Your task to perform on an android device: toggle location history Image 0: 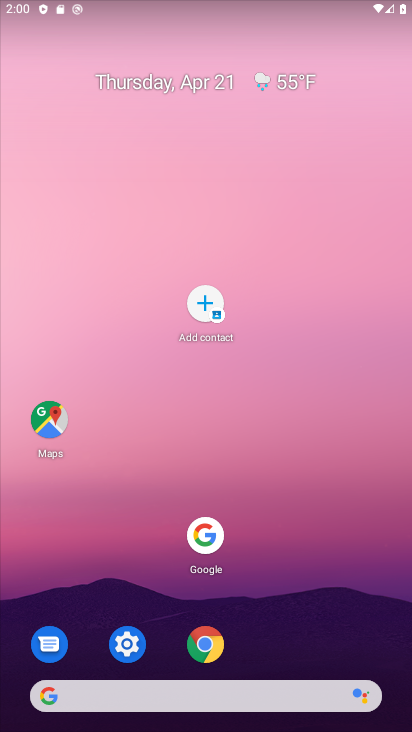
Step 0: drag from (344, 509) to (312, 206)
Your task to perform on an android device: toggle location history Image 1: 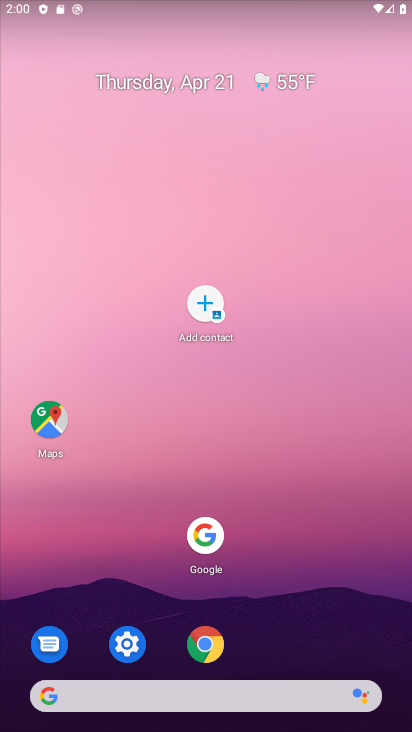
Step 1: drag from (307, 695) to (233, 61)
Your task to perform on an android device: toggle location history Image 2: 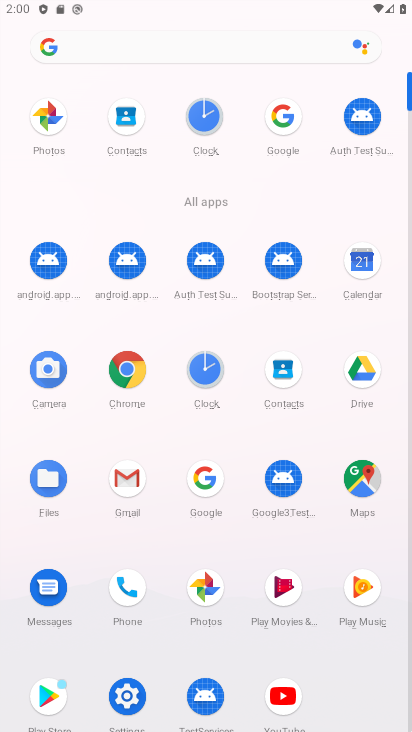
Step 2: drag from (309, 550) to (231, 71)
Your task to perform on an android device: toggle location history Image 3: 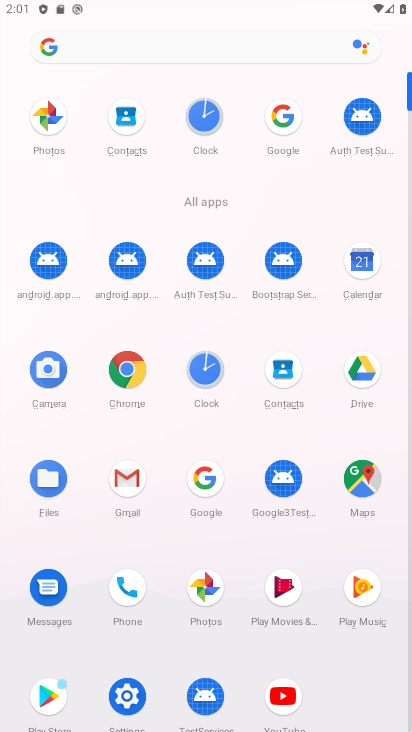
Step 3: click (360, 482)
Your task to perform on an android device: toggle location history Image 4: 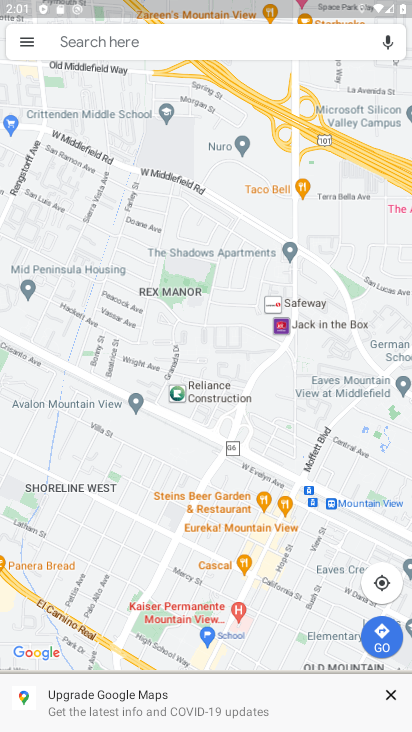
Step 4: click (34, 40)
Your task to perform on an android device: toggle location history Image 5: 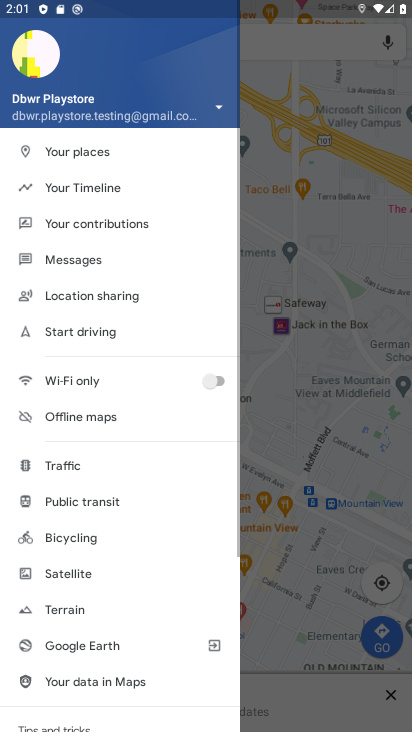
Step 5: click (31, 41)
Your task to perform on an android device: toggle location history Image 6: 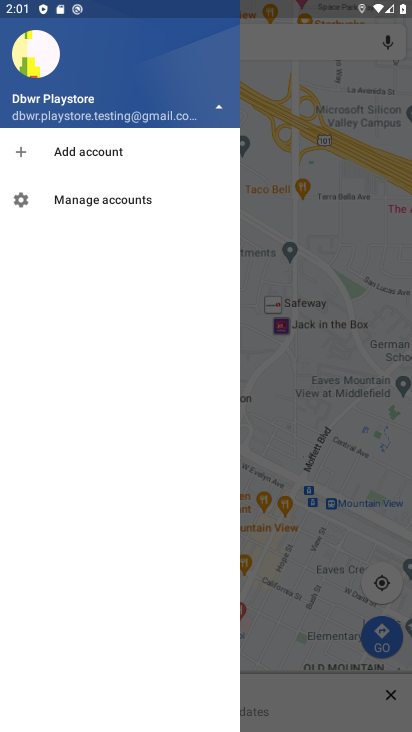
Step 6: click (99, 156)
Your task to perform on an android device: toggle location history Image 7: 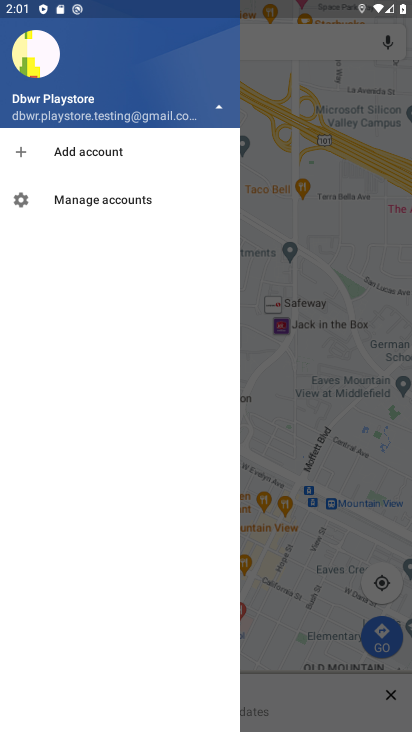
Step 7: click (101, 152)
Your task to perform on an android device: toggle location history Image 8: 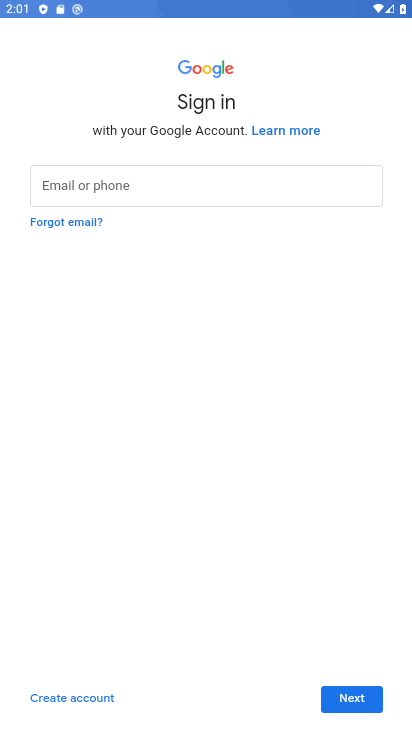
Step 8: press home button
Your task to perform on an android device: toggle location history Image 9: 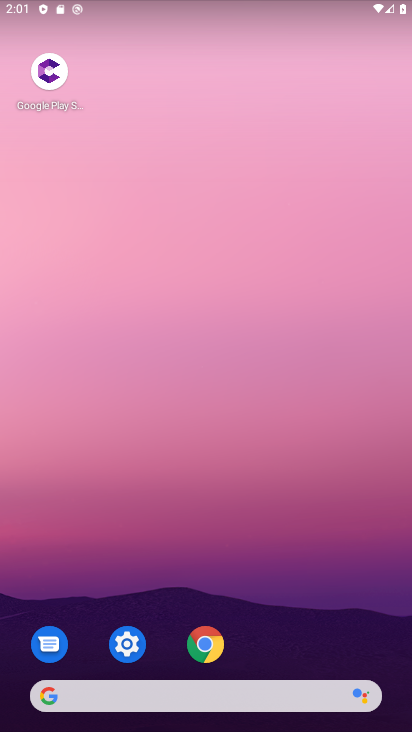
Step 9: drag from (283, 642) to (210, 70)
Your task to perform on an android device: toggle location history Image 10: 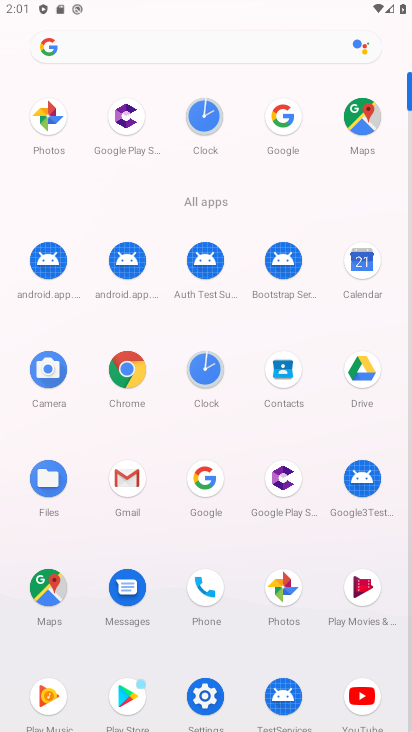
Step 10: click (354, 112)
Your task to perform on an android device: toggle location history Image 11: 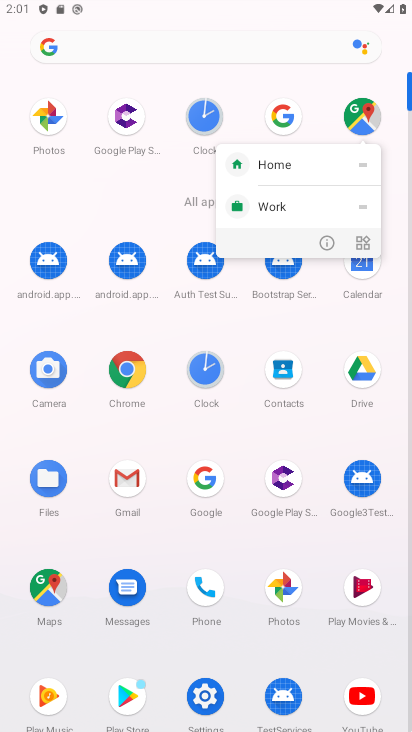
Step 11: click (358, 113)
Your task to perform on an android device: toggle location history Image 12: 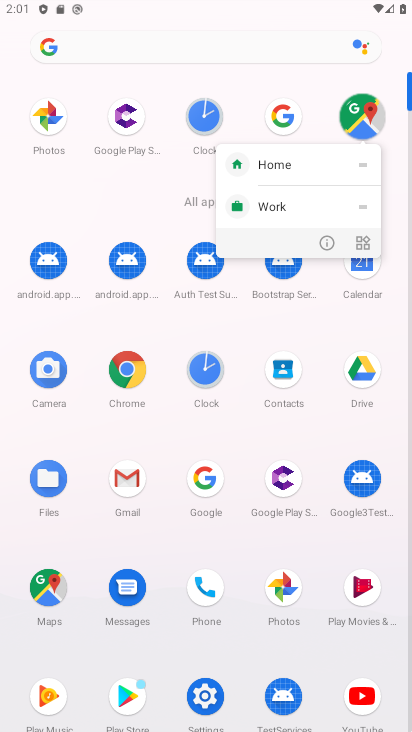
Step 12: click (358, 113)
Your task to perform on an android device: toggle location history Image 13: 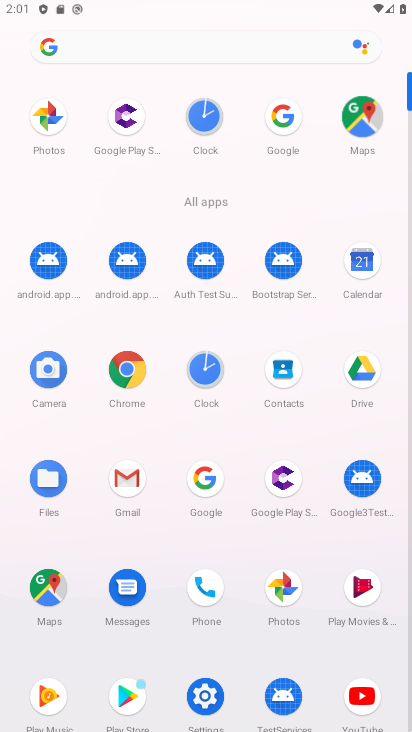
Step 13: click (365, 128)
Your task to perform on an android device: toggle location history Image 14: 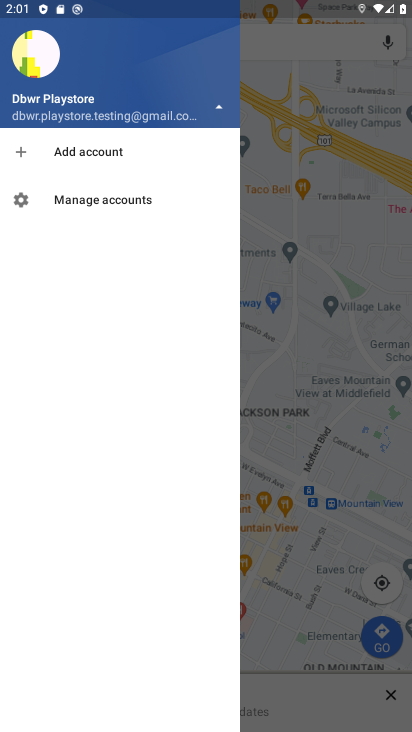
Step 14: click (355, 124)
Your task to perform on an android device: toggle location history Image 15: 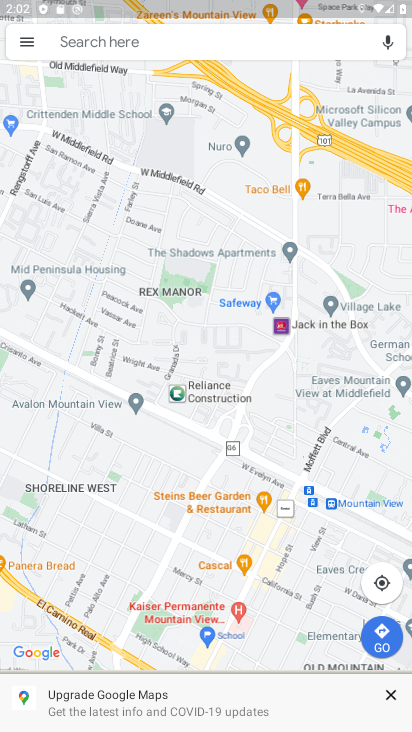
Step 15: click (26, 45)
Your task to perform on an android device: toggle location history Image 16: 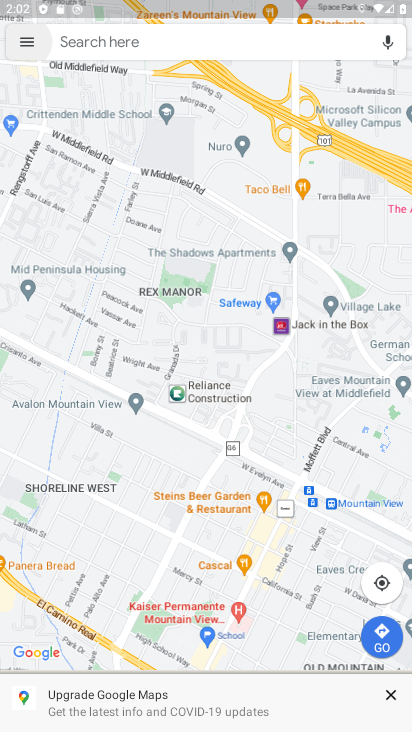
Step 16: click (26, 45)
Your task to perform on an android device: toggle location history Image 17: 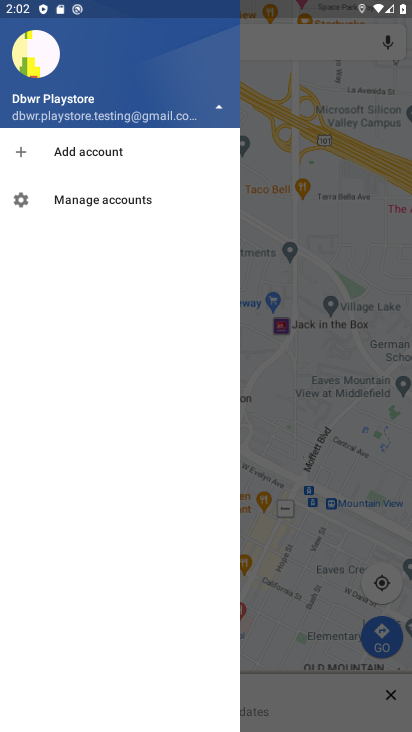
Step 17: click (210, 110)
Your task to perform on an android device: toggle location history Image 18: 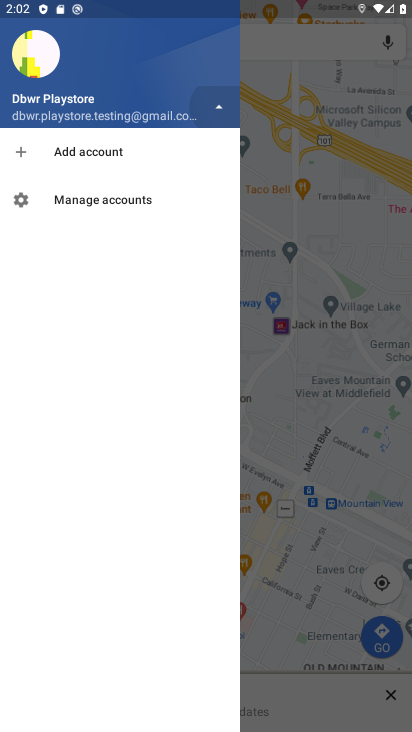
Step 18: click (210, 110)
Your task to perform on an android device: toggle location history Image 19: 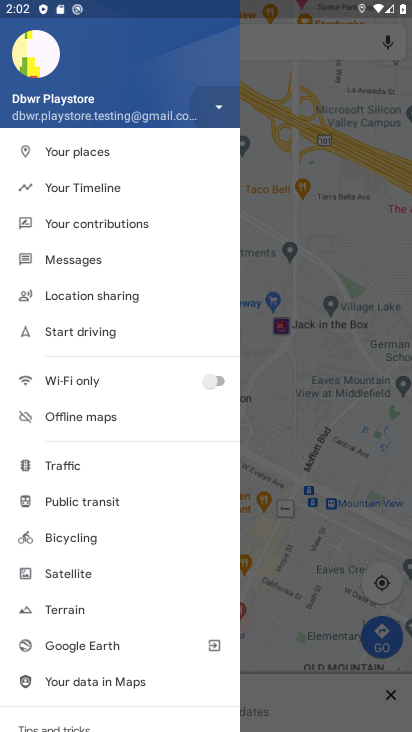
Step 19: click (208, 113)
Your task to perform on an android device: toggle location history Image 20: 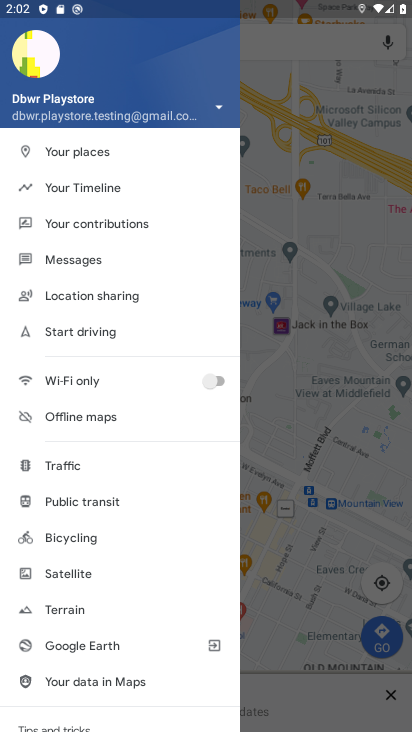
Step 20: click (74, 184)
Your task to perform on an android device: toggle location history Image 21: 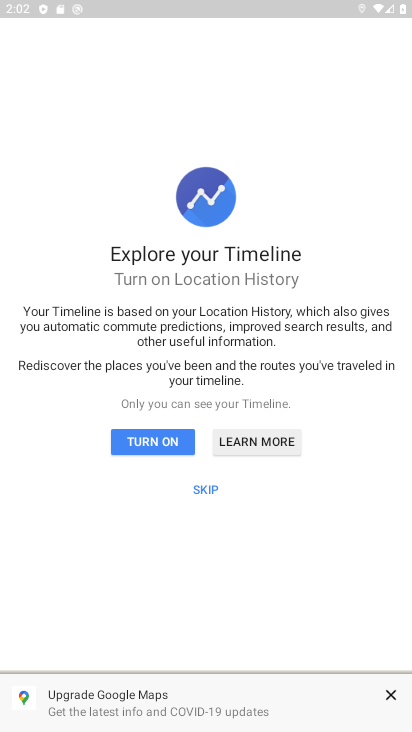
Step 21: click (132, 443)
Your task to perform on an android device: toggle location history Image 22: 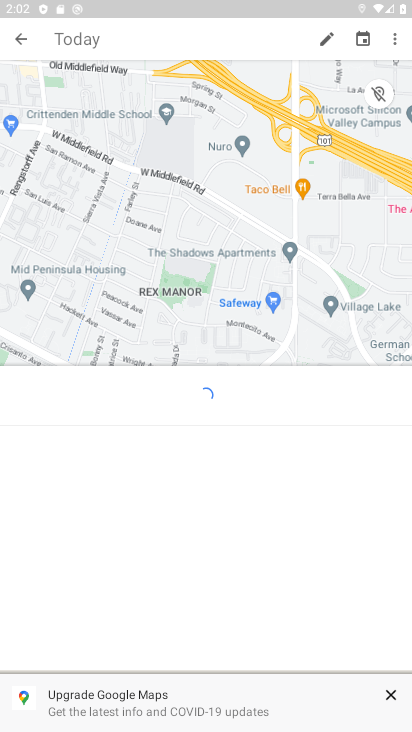
Step 22: click (150, 433)
Your task to perform on an android device: toggle location history Image 23: 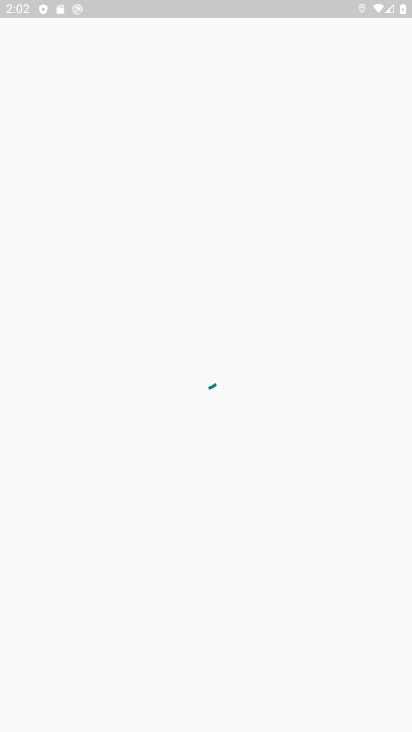
Step 23: click (388, 43)
Your task to perform on an android device: toggle location history Image 24: 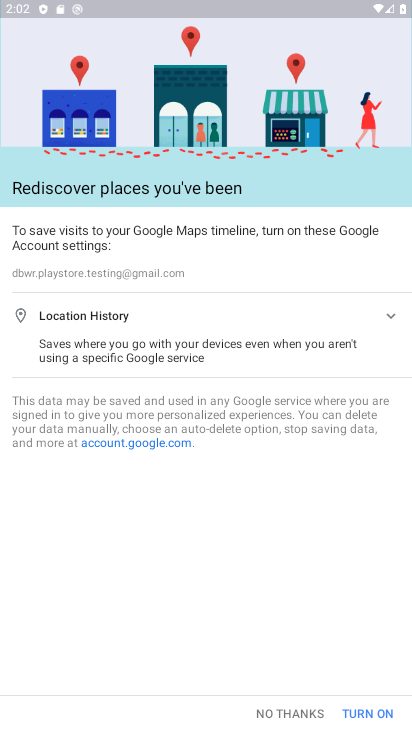
Step 24: click (124, 345)
Your task to perform on an android device: toggle location history Image 25: 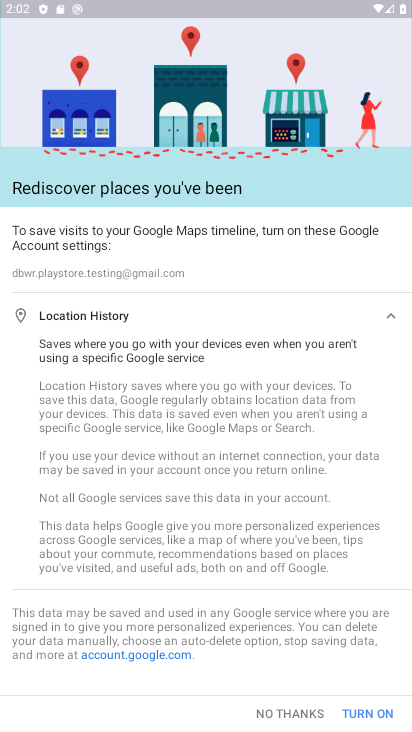
Step 25: click (116, 349)
Your task to perform on an android device: toggle location history Image 26: 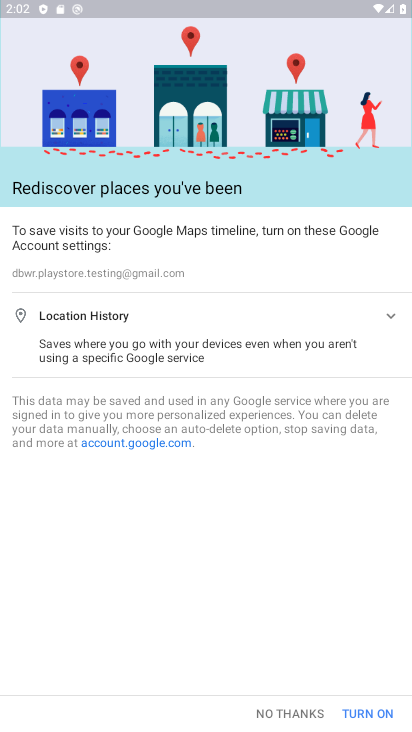
Step 26: click (367, 700)
Your task to perform on an android device: toggle location history Image 27: 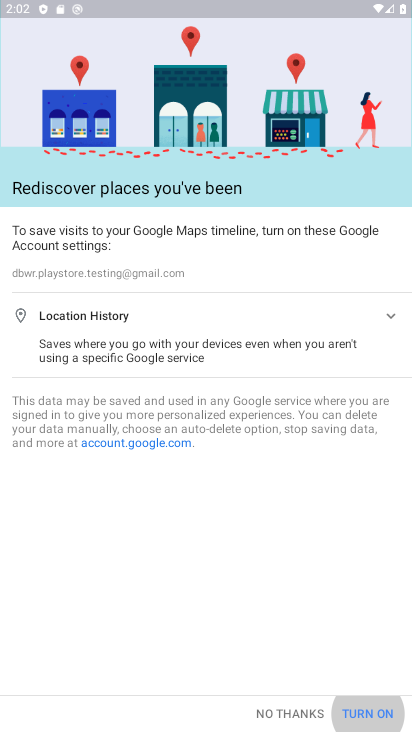
Step 27: click (361, 715)
Your task to perform on an android device: toggle location history Image 28: 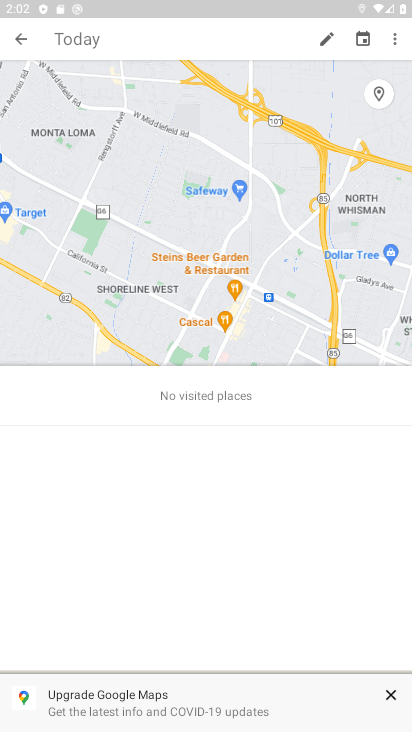
Step 28: task complete